Your task to perform on an android device: Search for razer huntsman on walmart.com, select the first entry, and add it to the cart. Image 0: 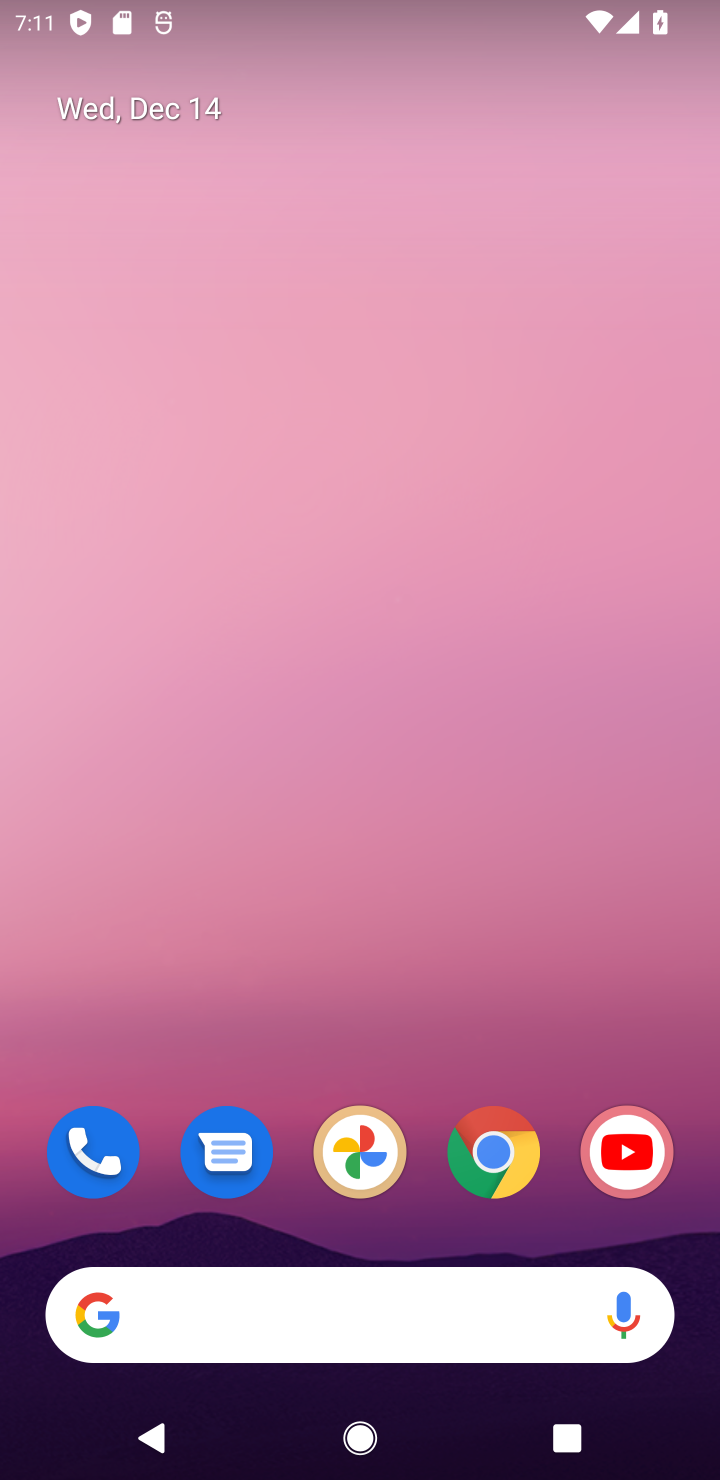
Step 0: click (505, 1160)
Your task to perform on an android device: Search for razer huntsman on walmart.com, select the first entry, and add it to the cart. Image 1: 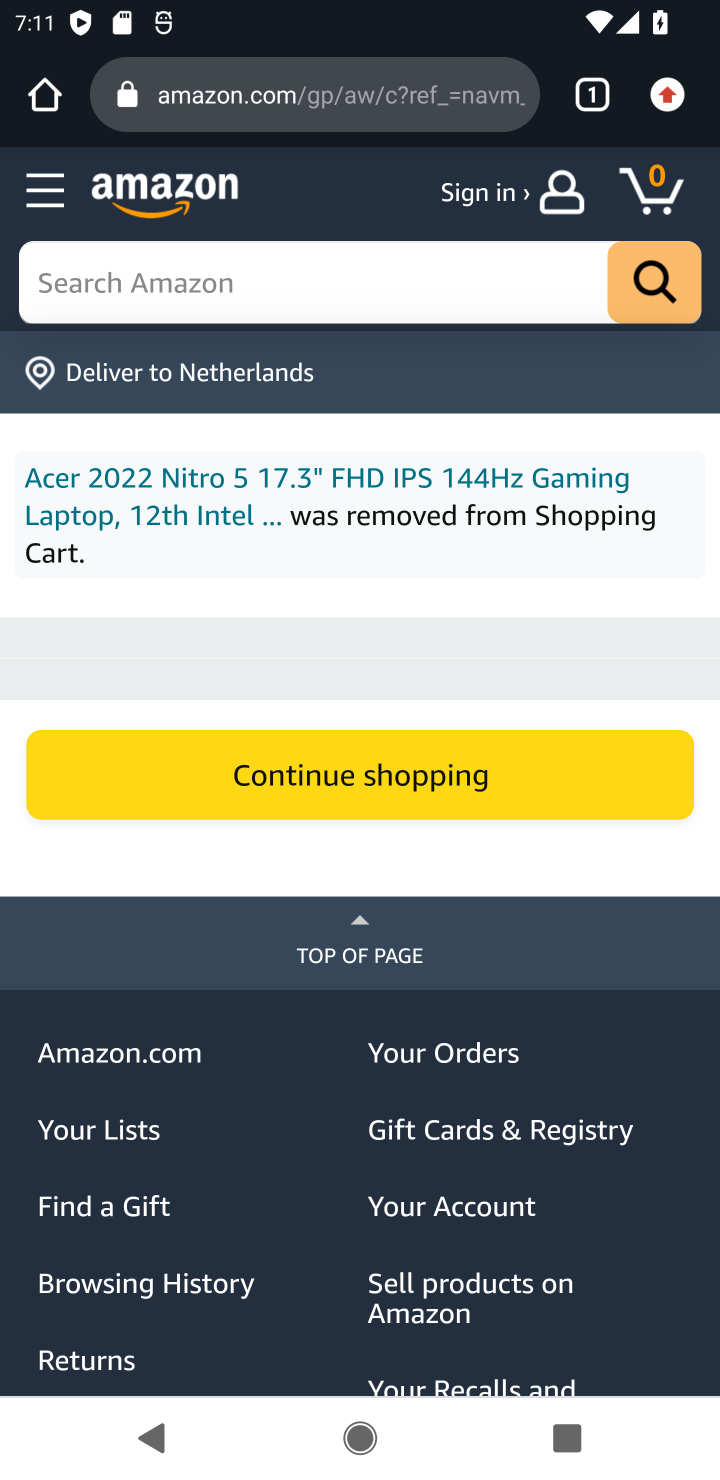
Step 1: click (259, 109)
Your task to perform on an android device: Search for razer huntsman on walmart.com, select the first entry, and add it to the cart. Image 2: 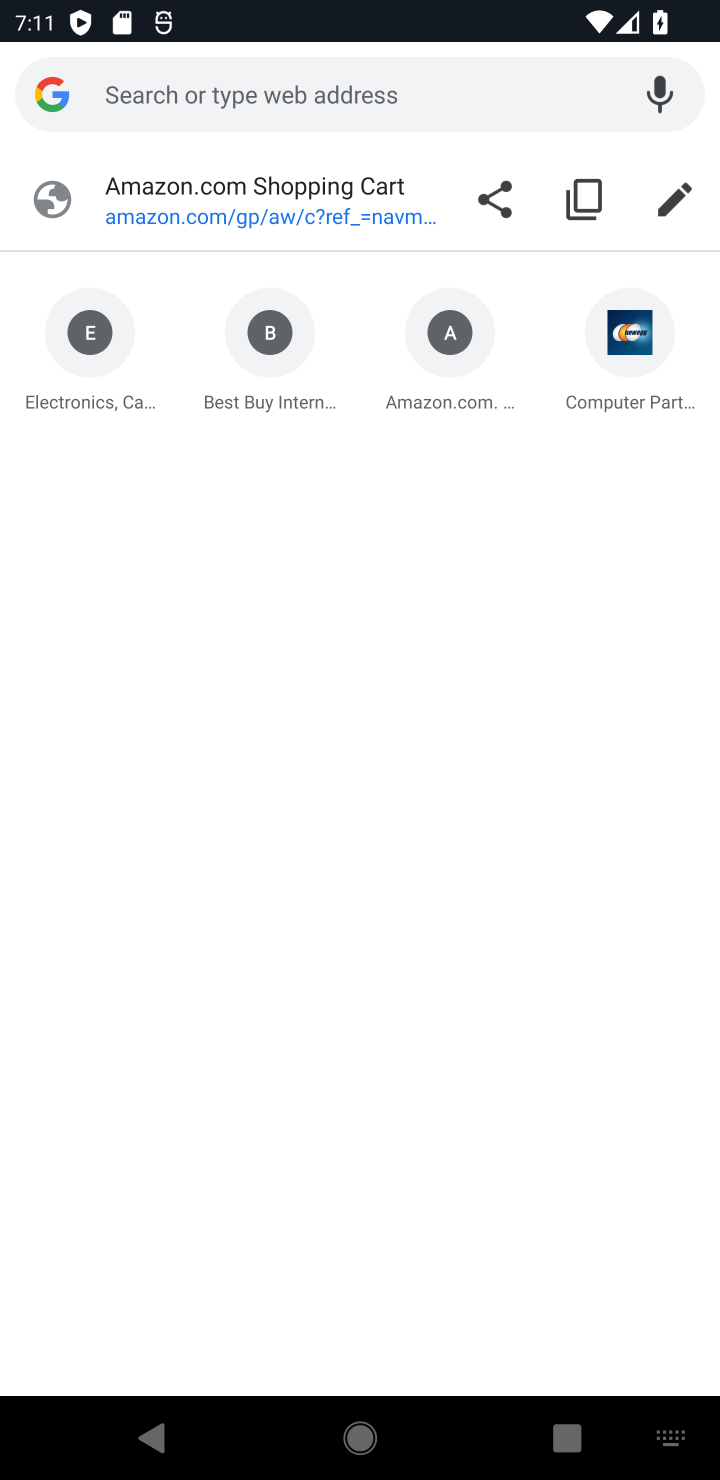
Step 2: type "walmart.com"
Your task to perform on an android device: Search for razer huntsman on walmart.com, select the first entry, and add it to the cart. Image 3: 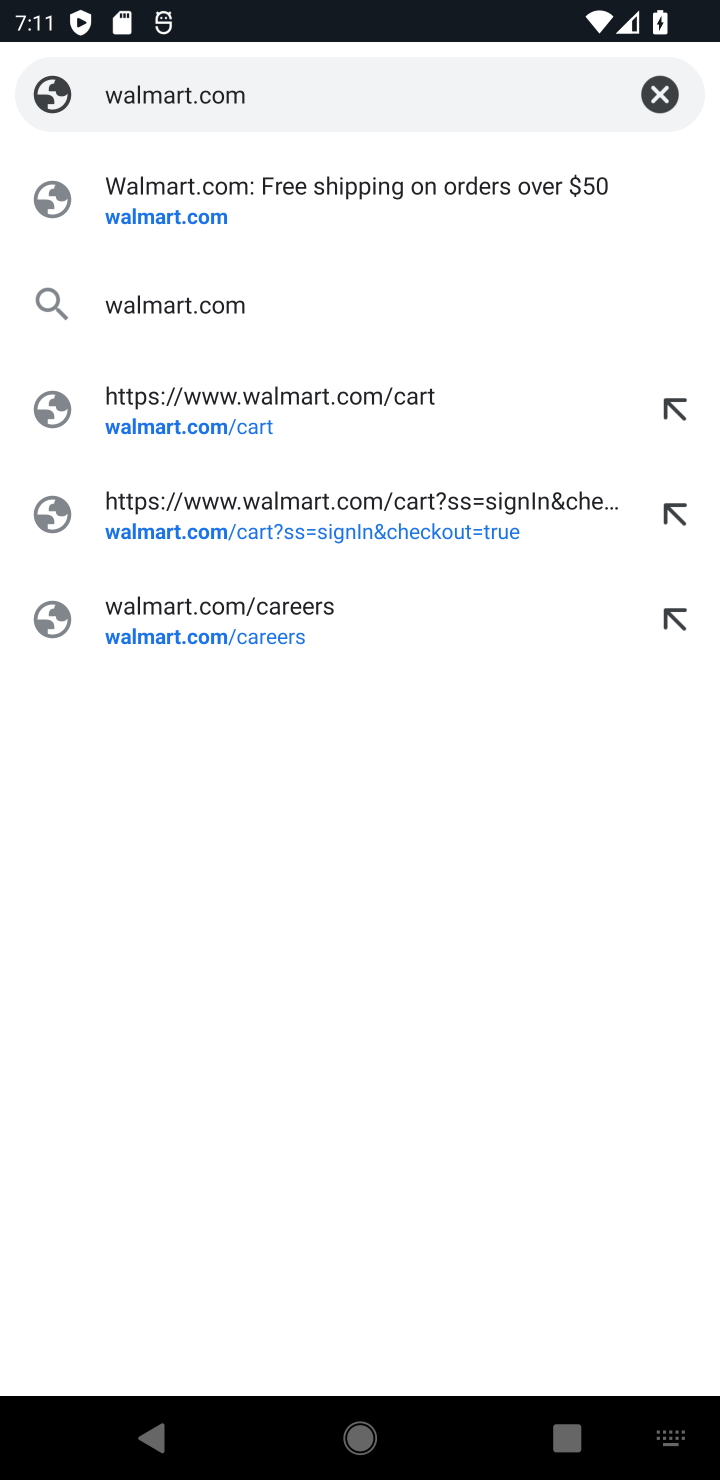
Step 3: click (141, 227)
Your task to perform on an android device: Search for razer huntsman on walmart.com, select the first entry, and add it to the cart. Image 4: 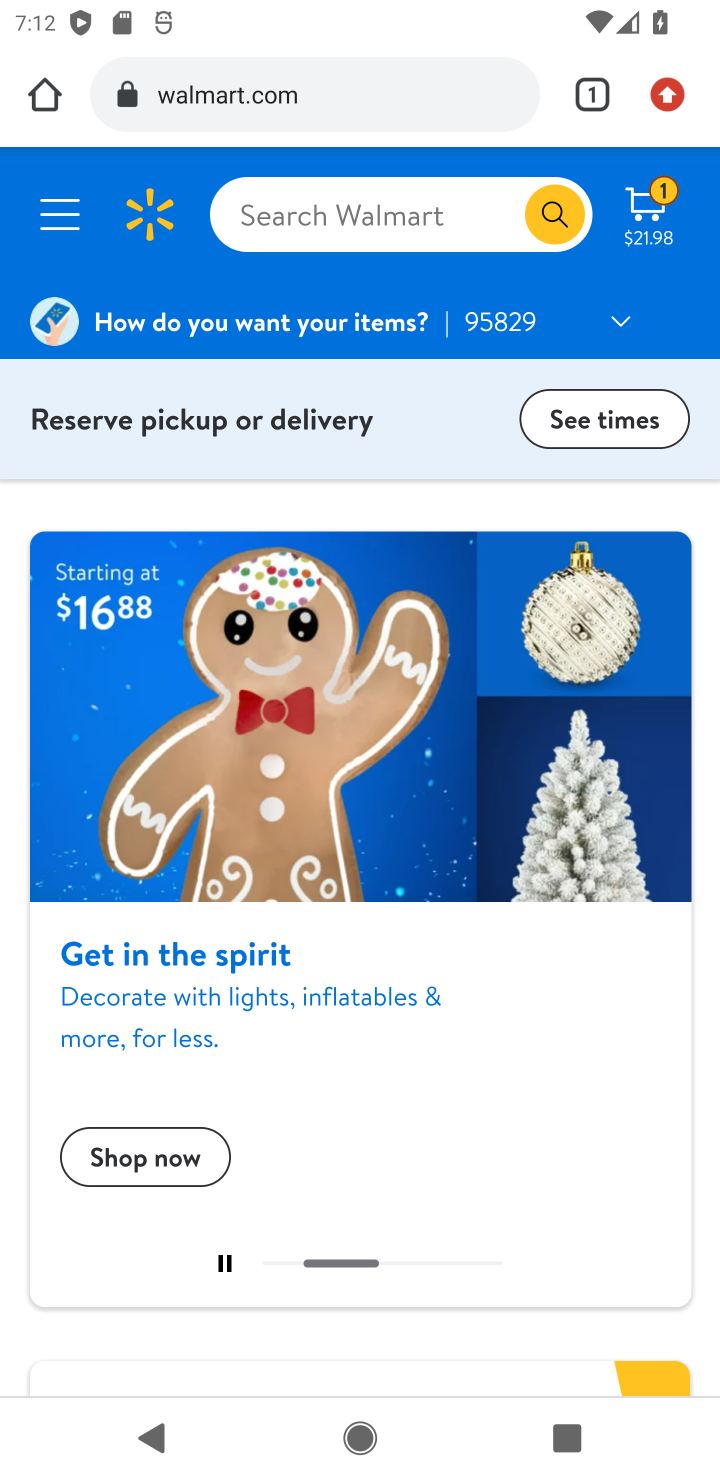
Step 4: click (406, 209)
Your task to perform on an android device: Search for razer huntsman on walmart.com, select the first entry, and add it to the cart. Image 5: 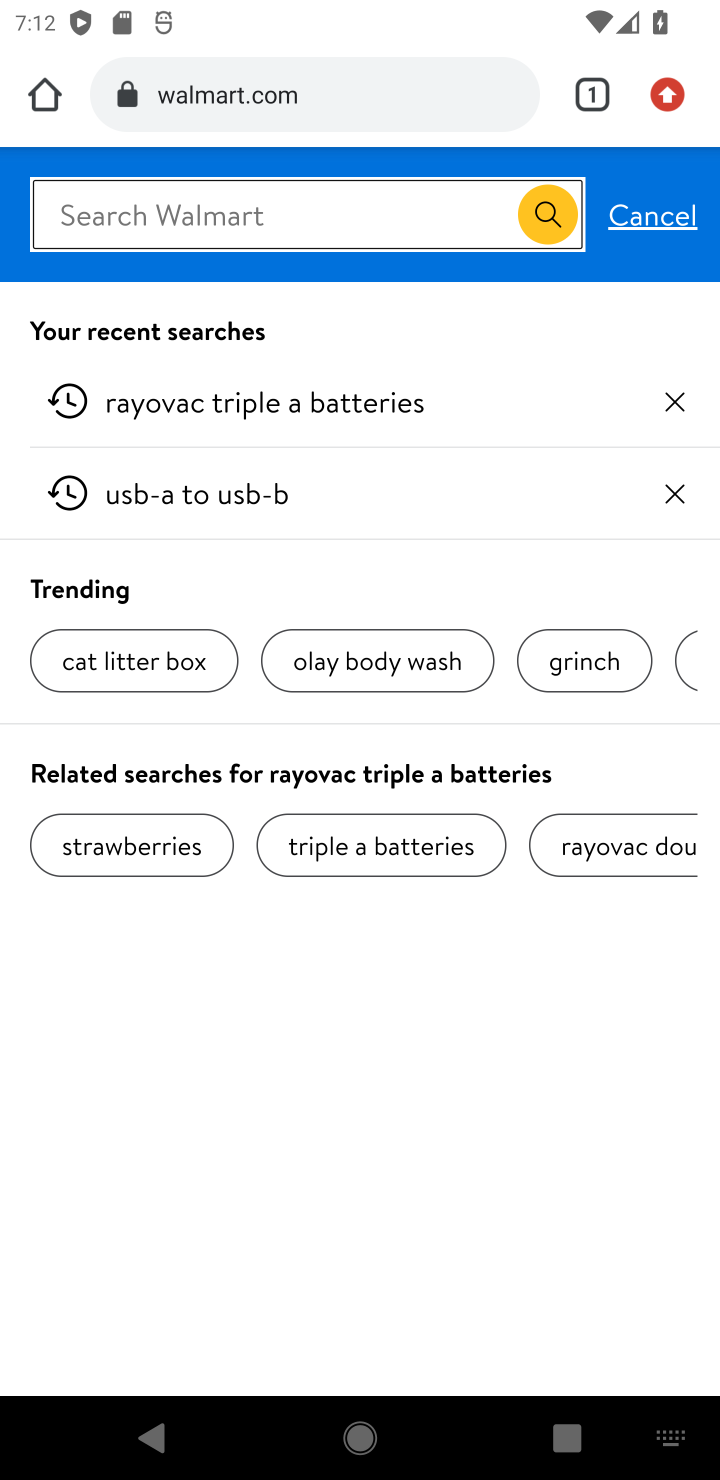
Step 5: type " razer huntsman"
Your task to perform on an android device: Search for razer huntsman on walmart.com, select the first entry, and add it to the cart. Image 6: 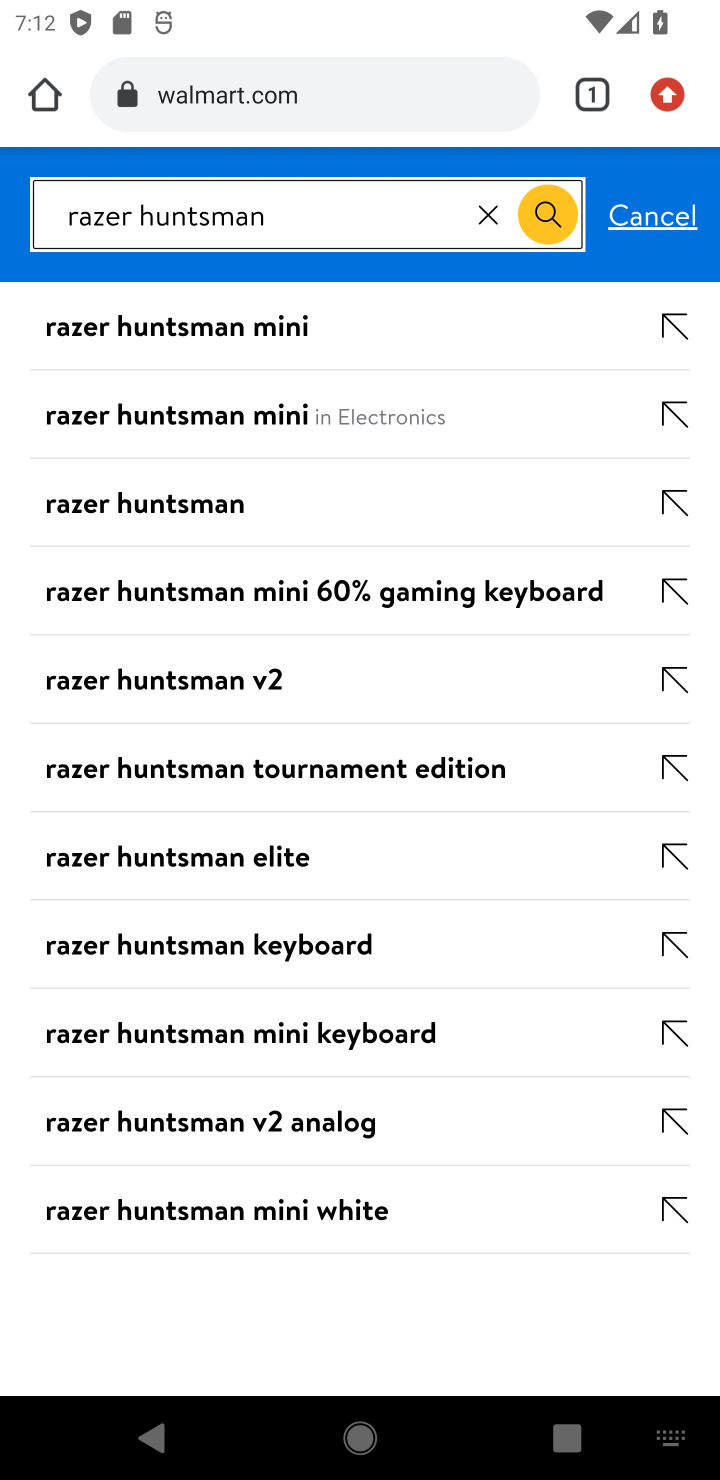
Step 6: click (153, 499)
Your task to perform on an android device: Search for razer huntsman on walmart.com, select the first entry, and add it to the cart. Image 7: 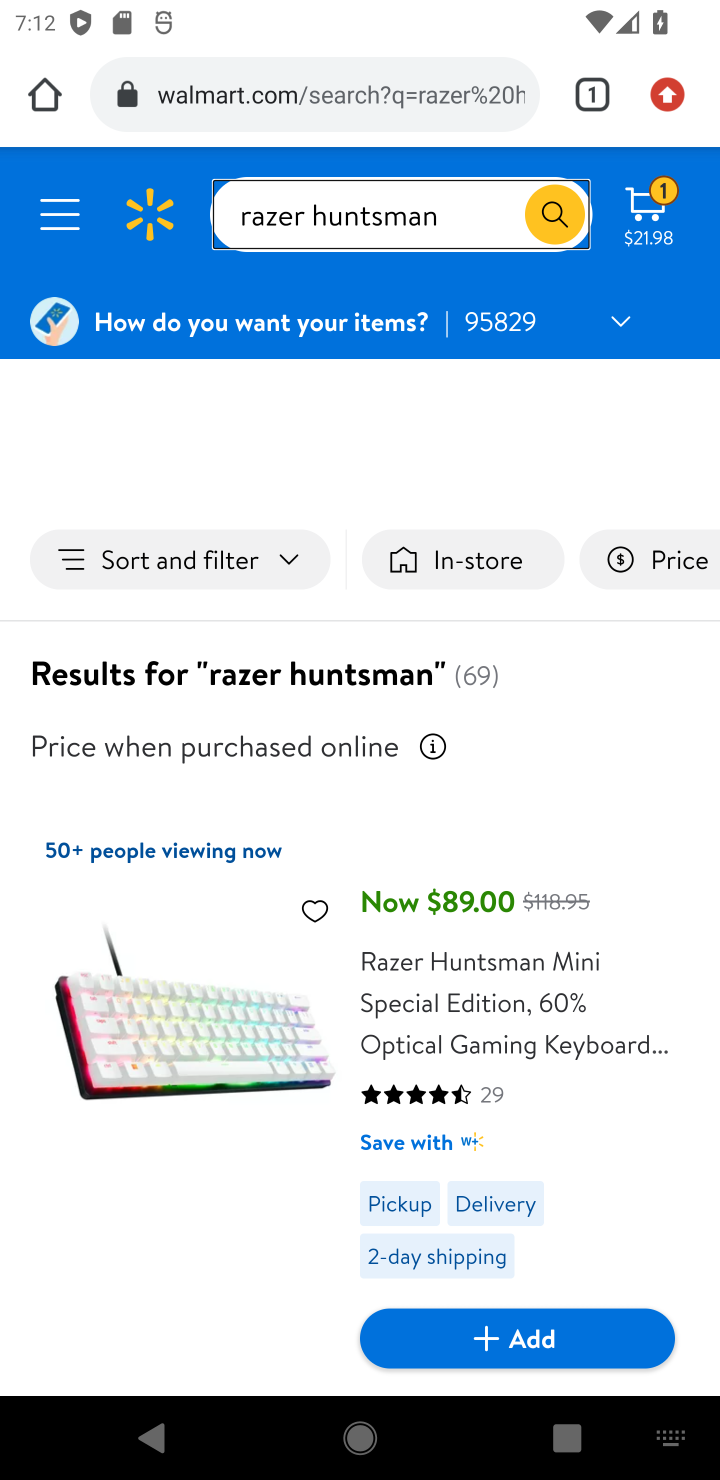
Step 7: click (524, 1347)
Your task to perform on an android device: Search for razer huntsman on walmart.com, select the first entry, and add it to the cart. Image 8: 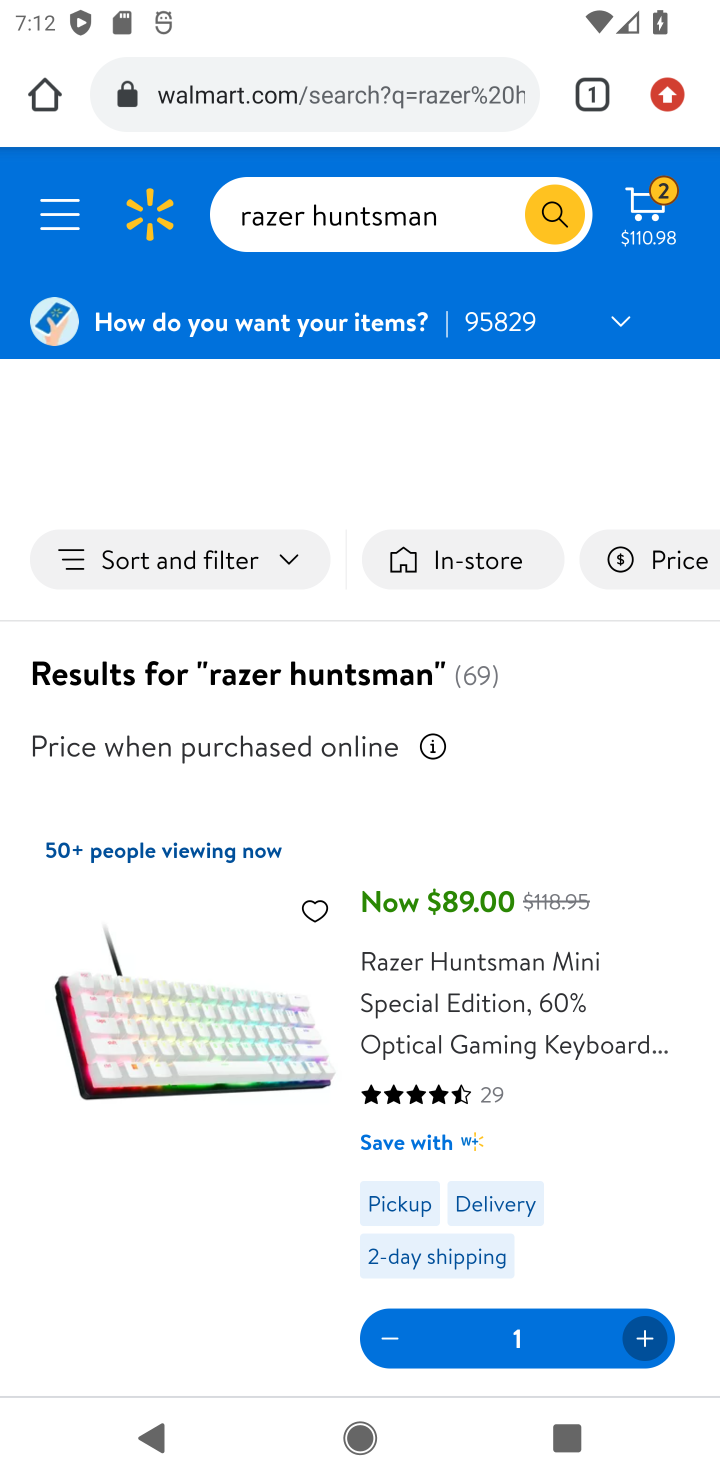
Step 8: task complete